Your task to perform on an android device: all mails in gmail Image 0: 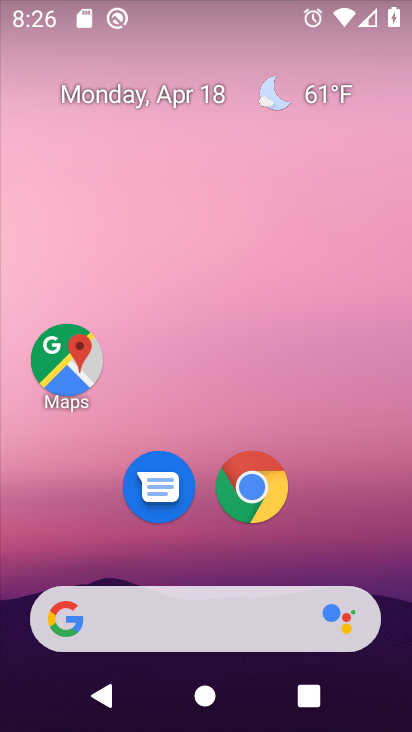
Step 0: drag from (199, 544) to (199, 21)
Your task to perform on an android device: all mails in gmail Image 1: 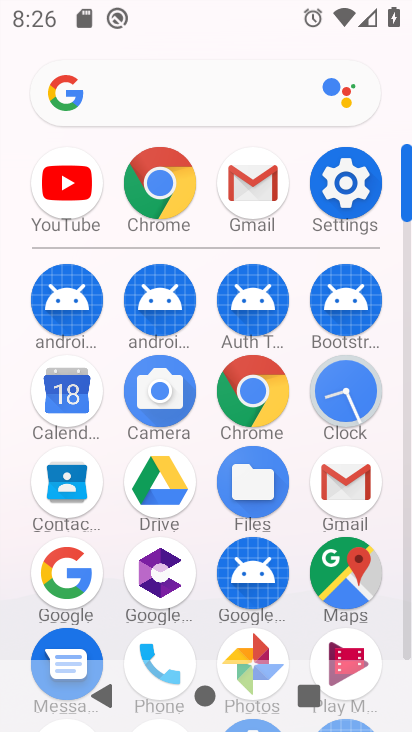
Step 1: click (343, 475)
Your task to perform on an android device: all mails in gmail Image 2: 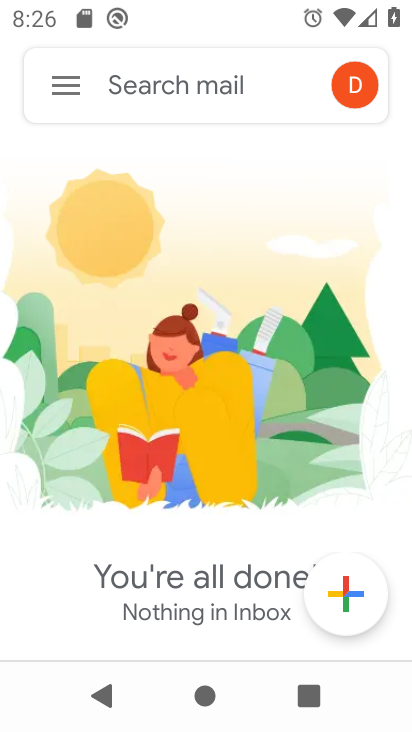
Step 2: click (63, 84)
Your task to perform on an android device: all mails in gmail Image 3: 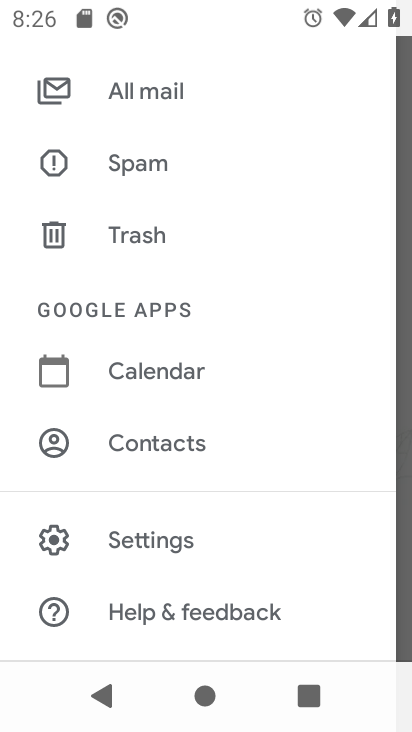
Step 3: click (142, 89)
Your task to perform on an android device: all mails in gmail Image 4: 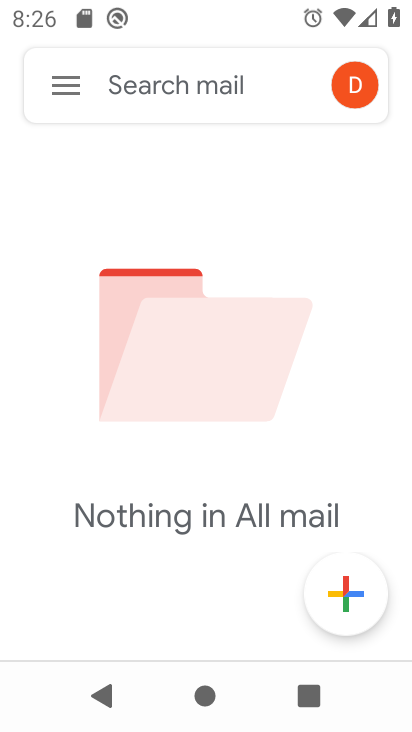
Step 4: task complete